Your task to perform on an android device: What's the weather? Image 0: 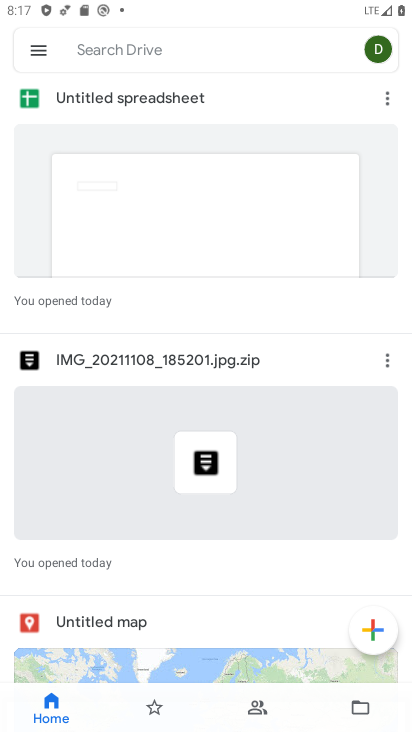
Step 0: press home button
Your task to perform on an android device: What's the weather? Image 1: 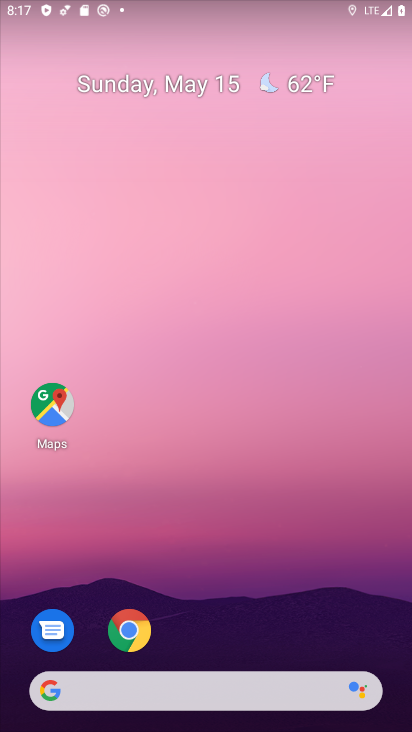
Step 1: click (309, 79)
Your task to perform on an android device: What's the weather? Image 2: 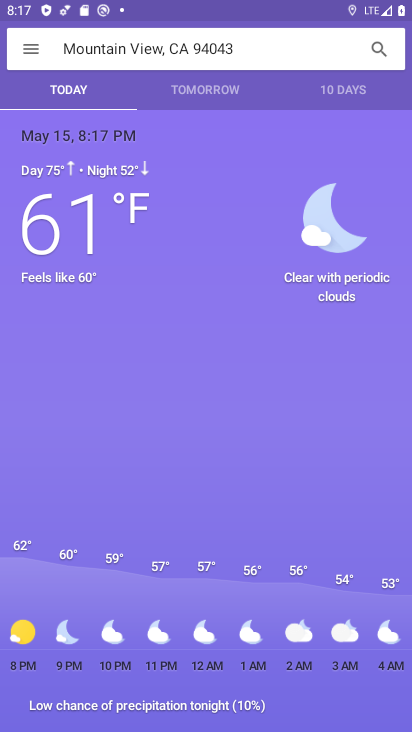
Step 2: task complete